Your task to perform on an android device: Open ESPN.com Image 0: 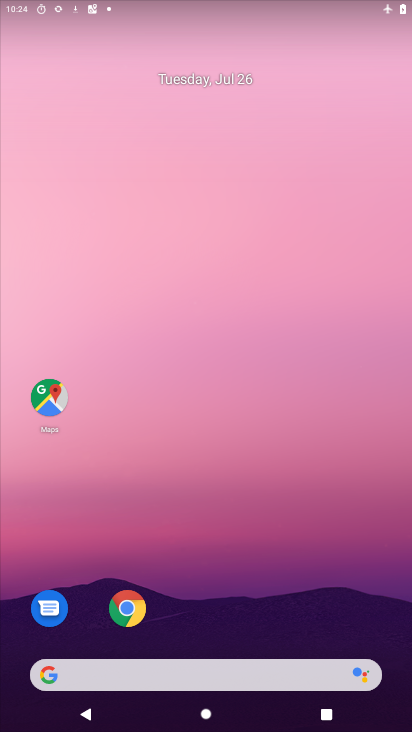
Step 0: click (126, 589)
Your task to perform on an android device: Open ESPN.com Image 1: 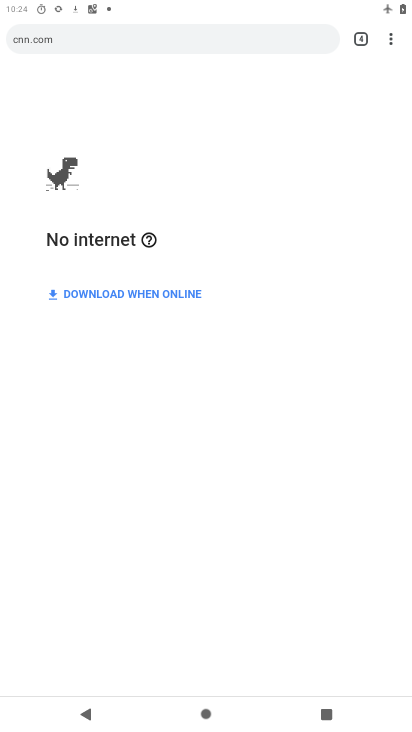
Step 1: click (367, 41)
Your task to perform on an android device: Open ESPN.com Image 2: 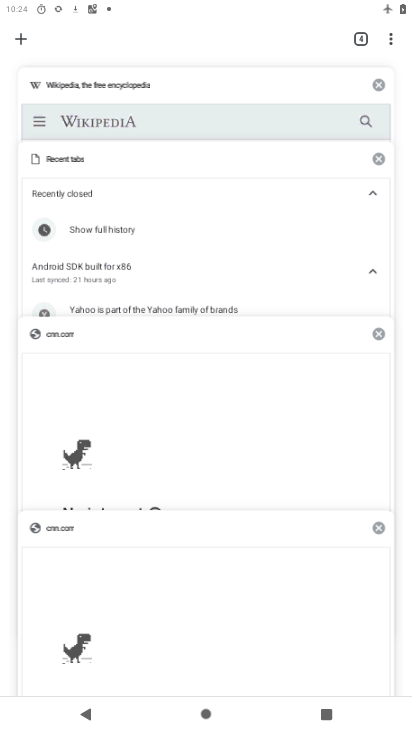
Step 2: click (25, 39)
Your task to perform on an android device: Open ESPN.com Image 3: 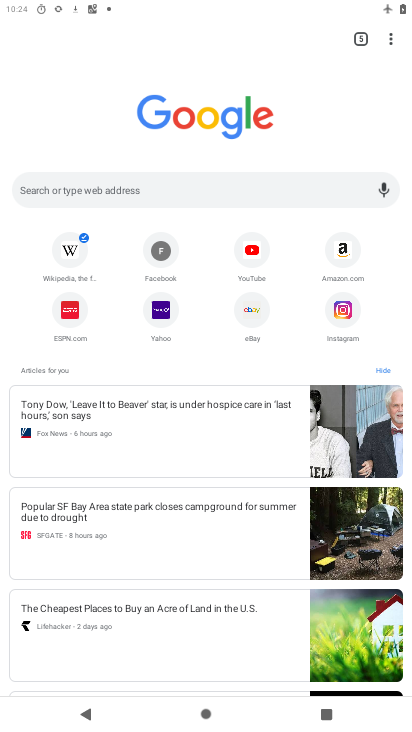
Step 3: click (87, 309)
Your task to perform on an android device: Open ESPN.com Image 4: 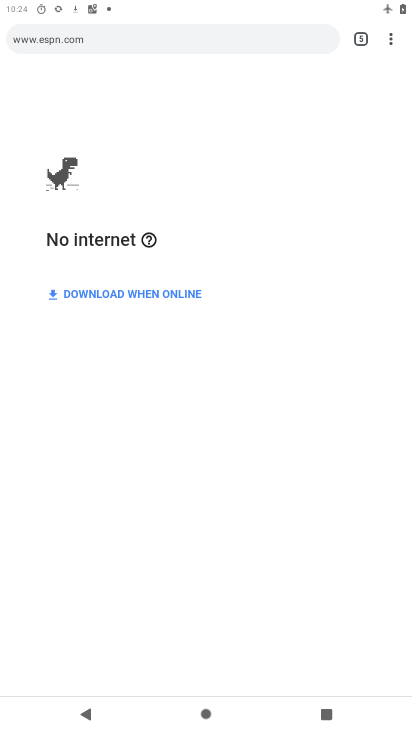
Step 4: task complete